Your task to perform on an android device: Open calendar and show me the fourth week of next month Image 0: 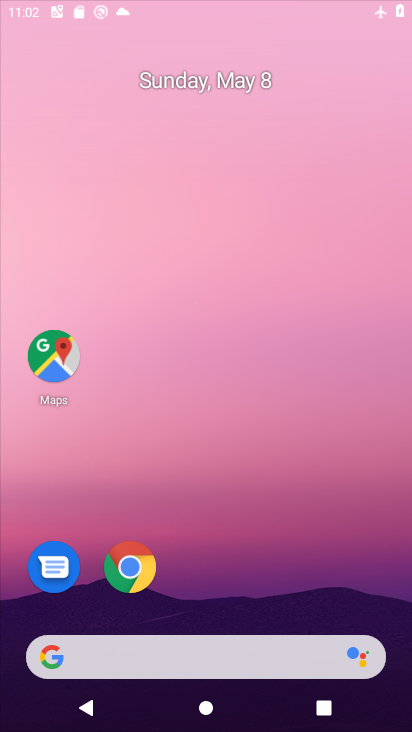
Step 0: click (228, 230)
Your task to perform on an android device: Open calendar and show me the fourth week of next month Image 1: 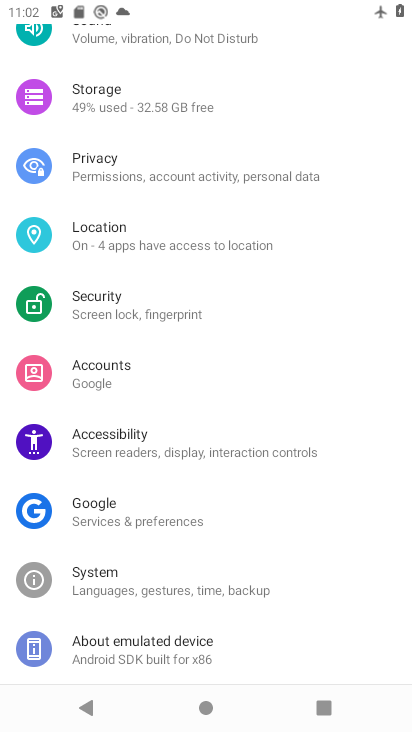
Step 1: drag from (136, 181) to (141, 382)
Your task to perform on an android device: Open calendar and show me the fourth week of next month Image 2: 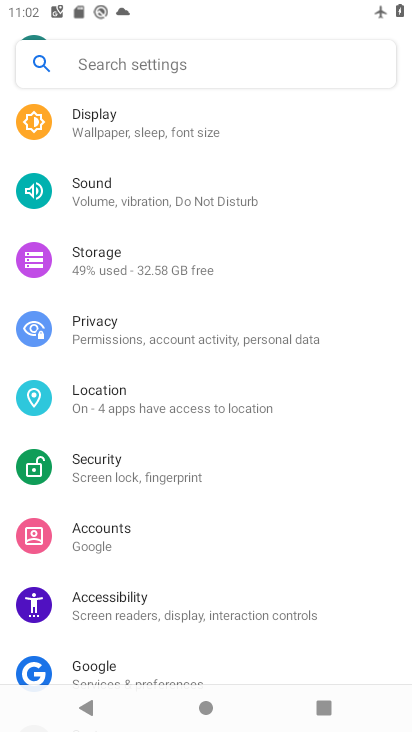
Step 2: click (90, 133)
Your task to perform on an android device: Open calendar and show me the fourth week of next month Image 3: 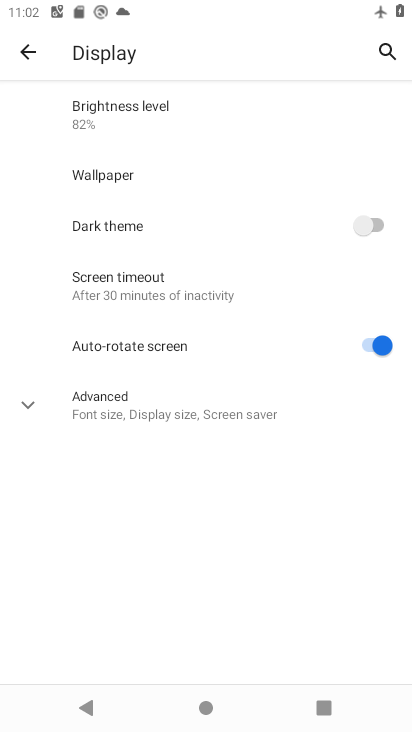
Step 3: task complete